Your task to perform on an android device: open app "Facebook Lite" (install if not already installed) and enter user name: "suppers@inbox.com" and password: "downplayed" Image 0: 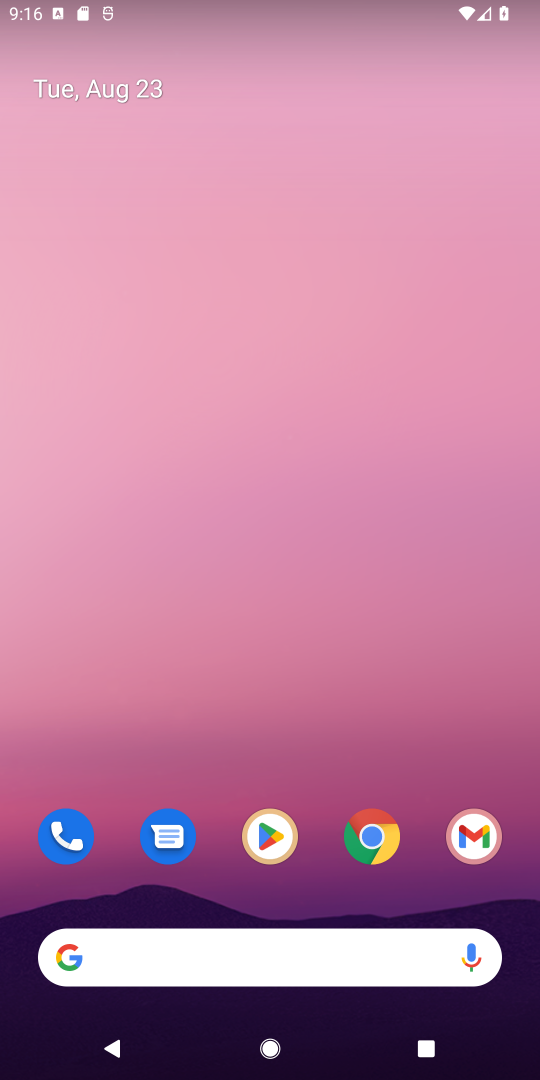
Step 0: click (271, 846)
Your task to perform on an android device: open app "Facebook Lite" (install if not already installed) and enter user name: "suppers@inbox.com" and password: "downplayed" Image 1: 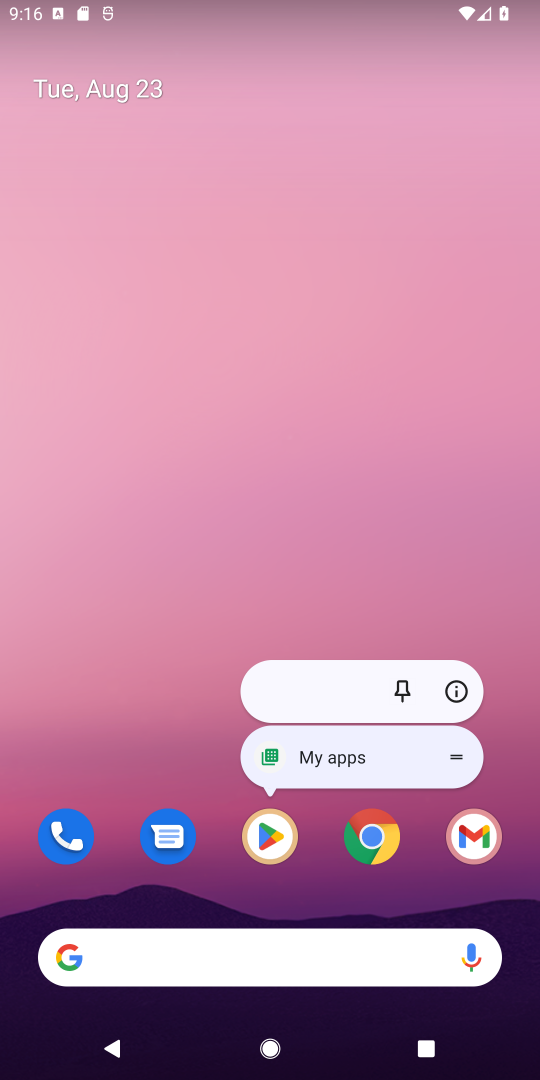
Step 1: click (271, 850)
Your task to perform on an android device: open app "Facebook Lite" (install if not already installed) and enter user name: "suppers@inbox.com" and password: "downplayed" Image 2: 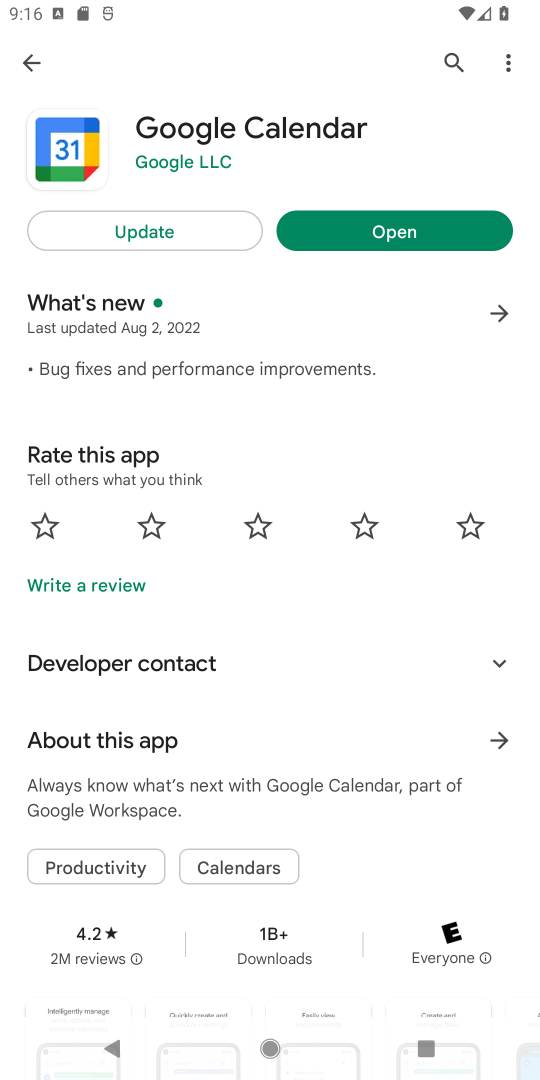
Step 2: click (450, 54)
Your task to perform on an android device: open app "Facebook Lite" (install if not already installed) and enter user name: "suppers@inbox.com" and password: "downplayed" Image 3: 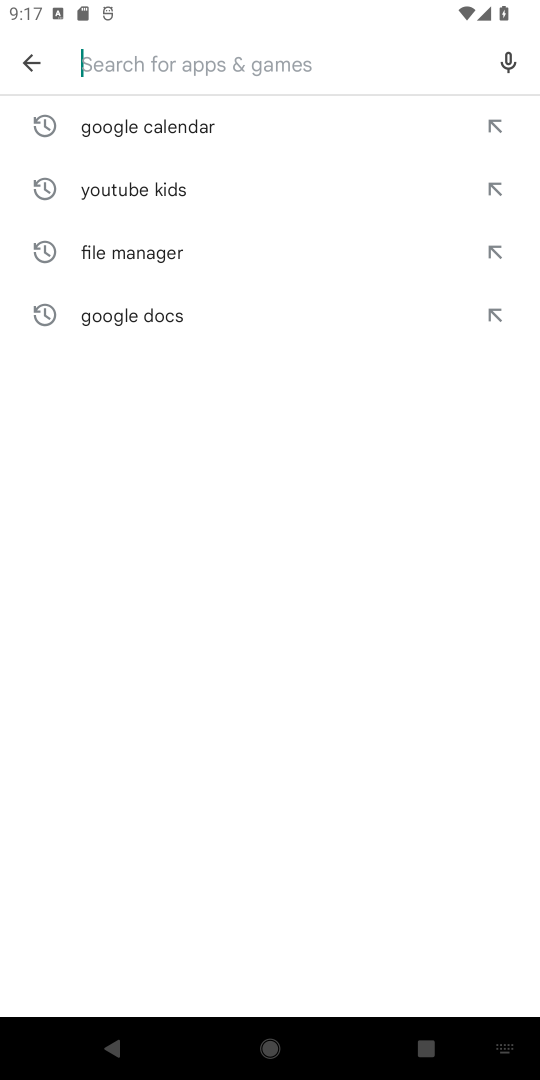
Step 3: type "Facebook Lite"
Your task to perform on an android device: open app "Facebook Lite" (install if not already installed) and enter user name: "suppers@inbox.com" and password: "downplayed" Image 4: 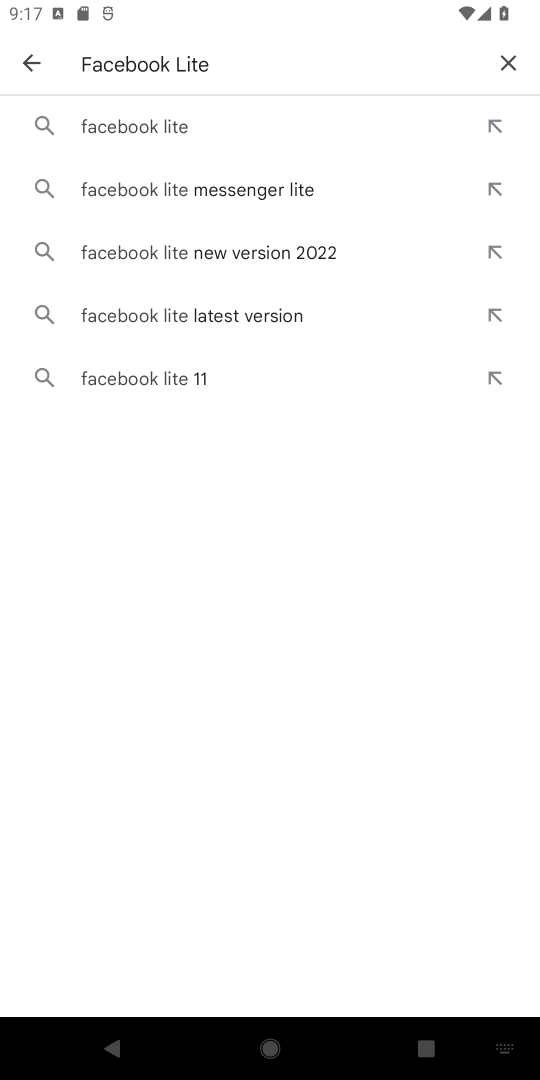
Step 4: click (115, 133)
Your task to perform on an android device: open app "Facebook Lite" (install if not already installed) and enter user name: "suppers@inbox.com" and password: "downplayed" Image 5: 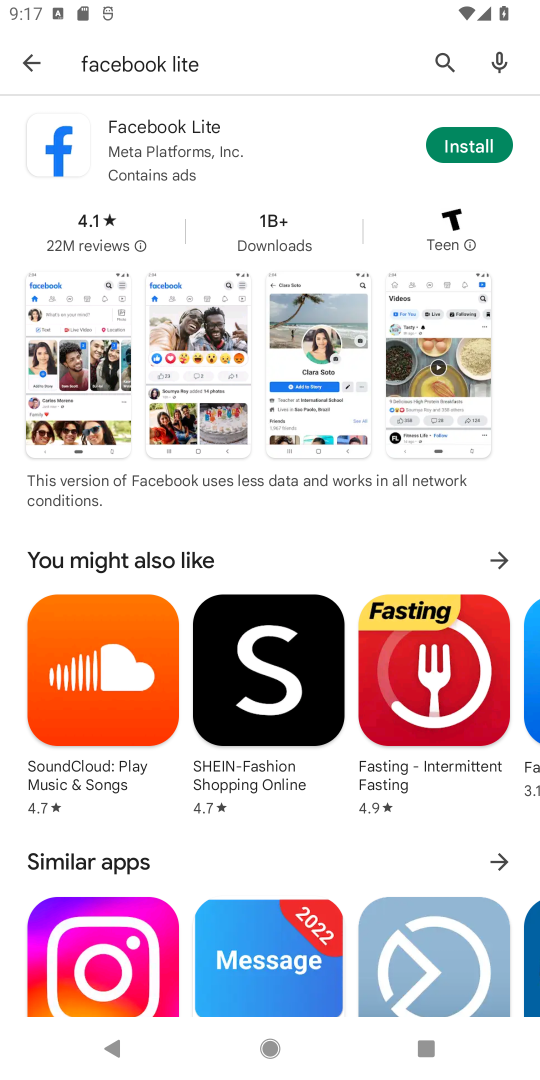
Step 5: click (468, 144)
Your task to perform on an android device: open app "Facebook Lite" (install if not already installed) and enter user name: "suppers@inbox.com" and password: "downplayed" Image 6: 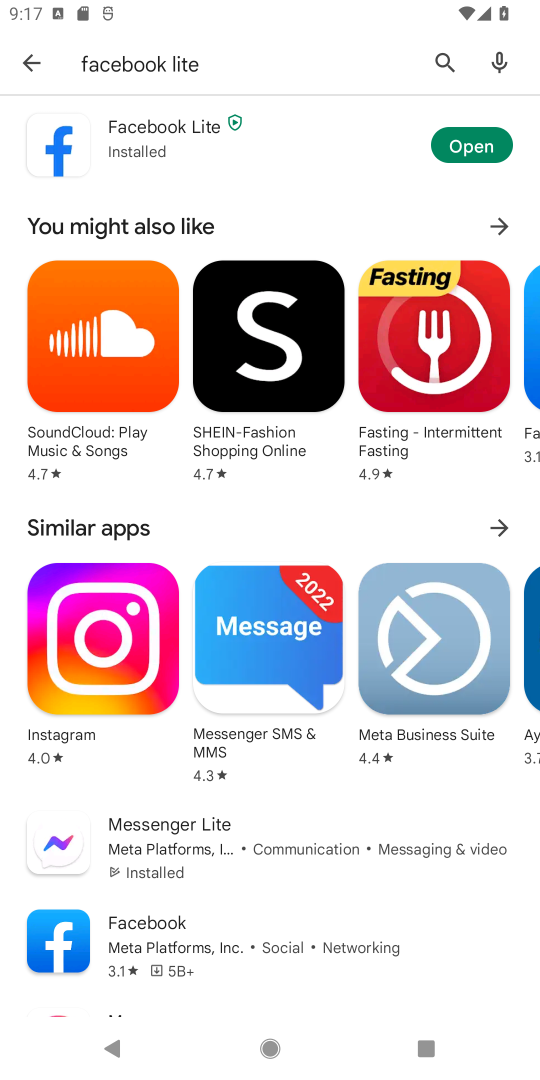
Step 6: click (479, 143)
Your task to perform on an android device: open app "Facebook Lite" (install if not already installed) and enter user name: "suppers@inbox.com" and password: "downplayed" Image 7: 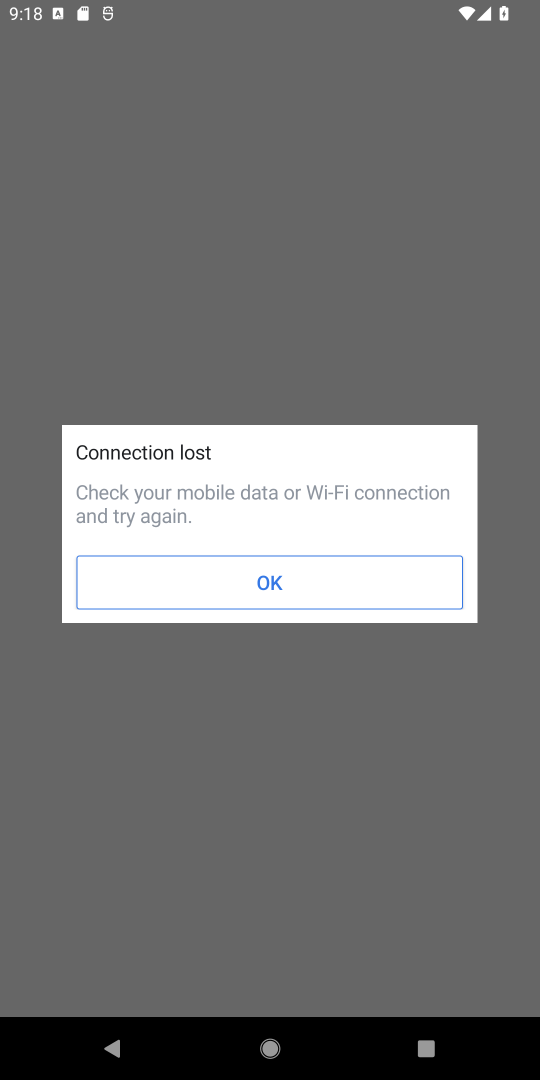
Step 7: task complete